Your task to perform on an android device: Open sound settings Image 0: 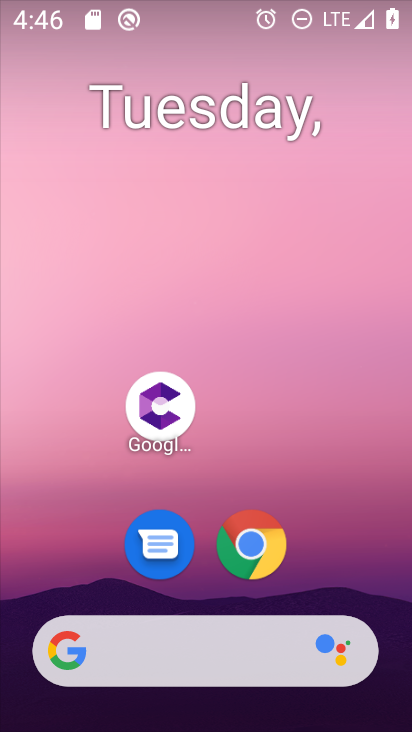
Step 0: drag from (372, 571) to (358, 165)
Your task to perform on an android device: Open sound settings Image 1: 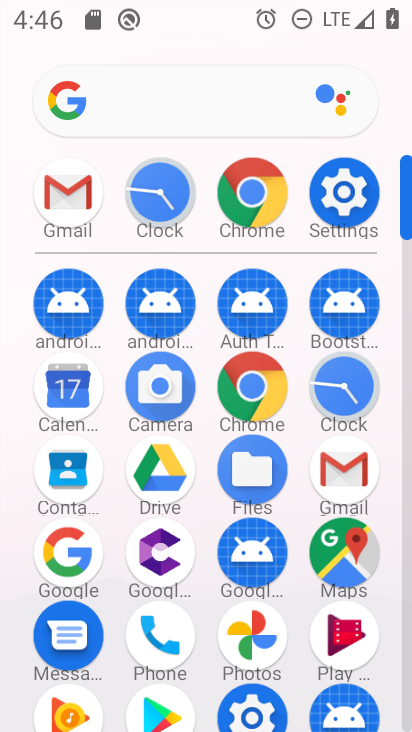
Step 1: click (359, 200)
Your task to perform on an android device: Open sound settings Image 2: 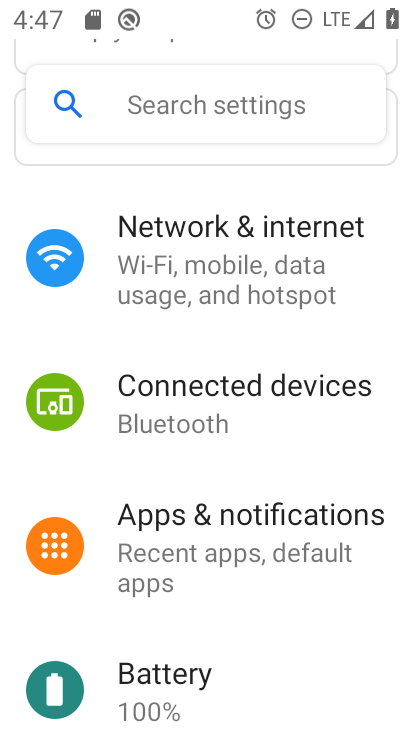
Step 2: drag from (302, 578) to (331, 418)
Your task to perform on an android device: Open sound settings Image 3: 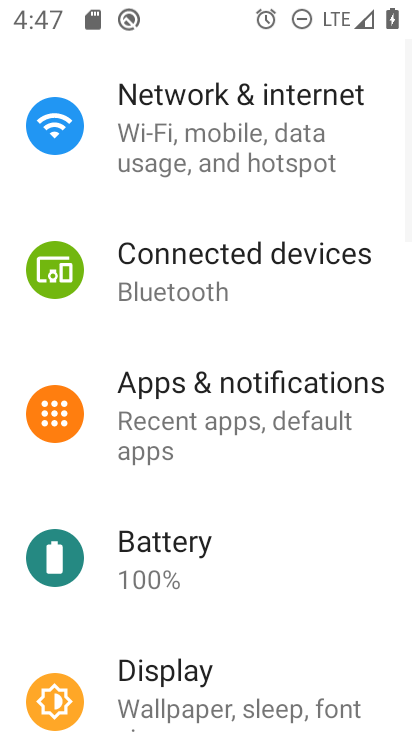
Step 3: drag from (325, 594) to (331, 434)
Your task to perform on an android device: Open sound settings Image 4: 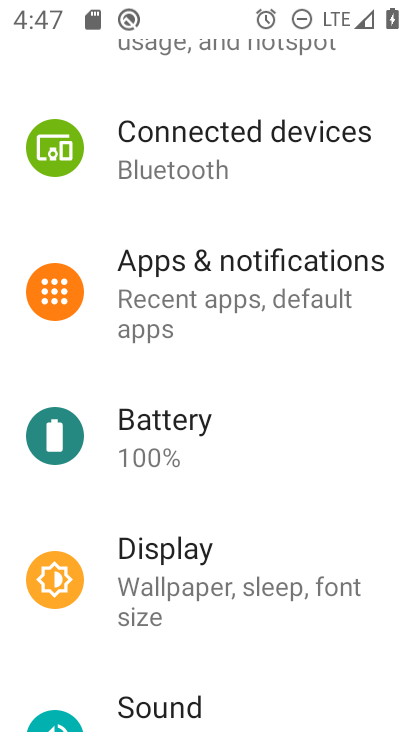
Step 4: drag from (291, 630) to (306, 470)
Your task to perform on an android device: Open sound settings Image 5: 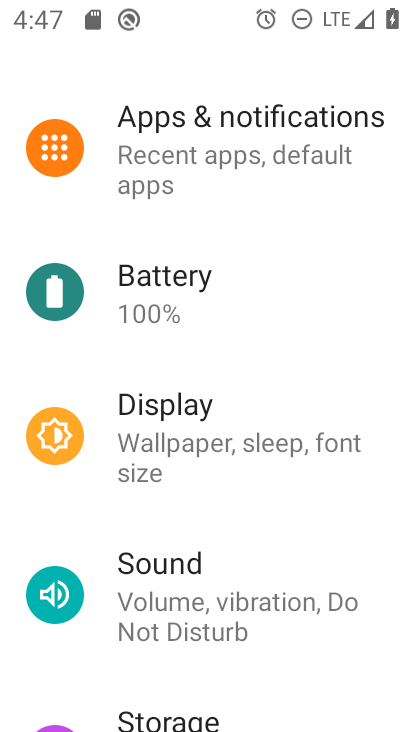
Step 5: click (270, 601)
Your task to perform on an android device: Open sound settings Image 6: 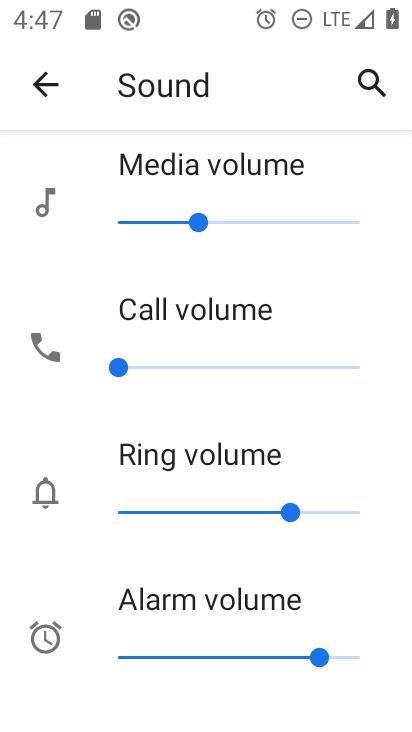
Step 6: task complete